Your task to perform on an android device: What's on my calendar tomorrow? Image 0: 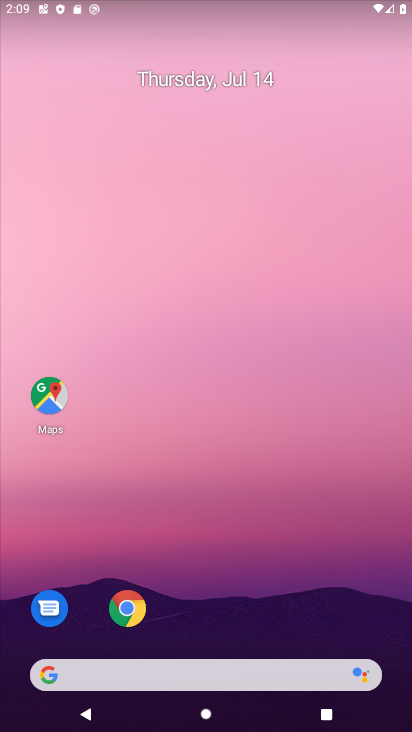
Step 0: drag from (42, 544) to (312, 66)
Your task to perform on an android device: What's on my calendar tomorrow? Image 1: 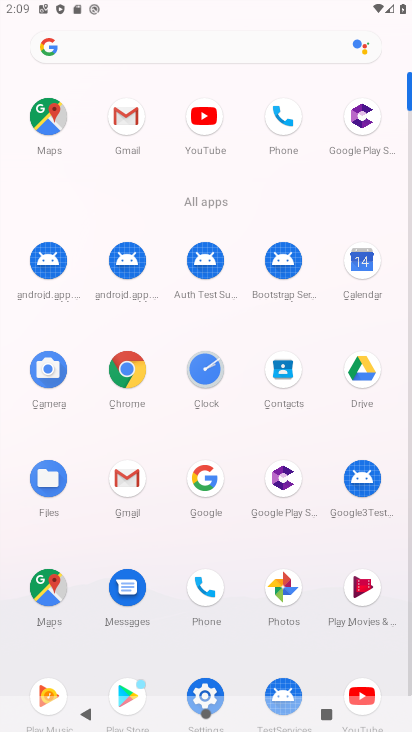
Step 1: click (362, 251)
Your task to perform on an android device: What's on my calendar tomorrow? Image 2: 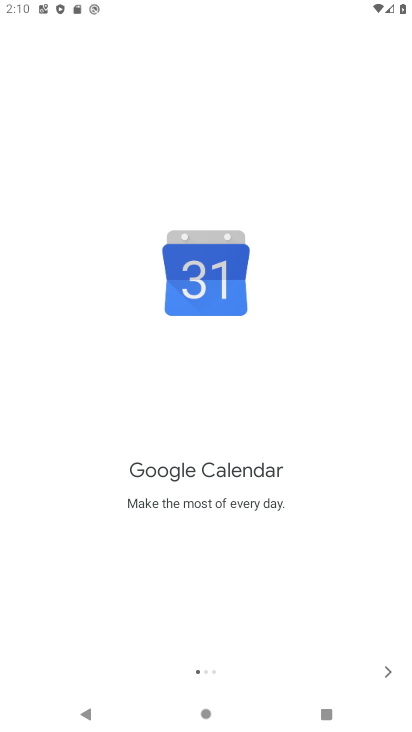
Step 2: click (392, 670)
Your task to perform on an android device: What's on my calendar tomorrow? Image 3: 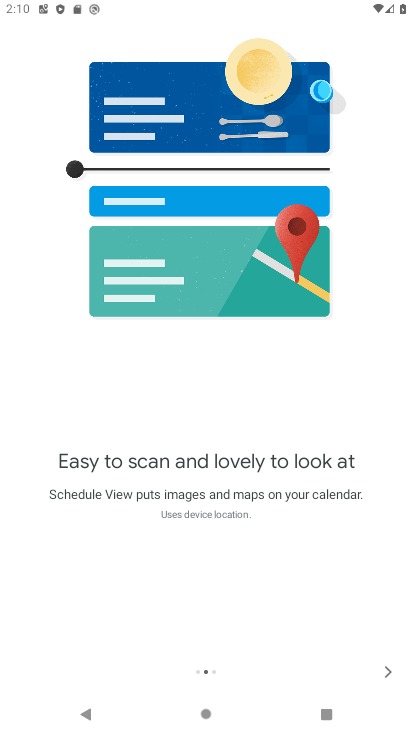
Step 3: click (392, 670)
Your task to perform on an android device: What's on my calendar tomorrow? Image 4: 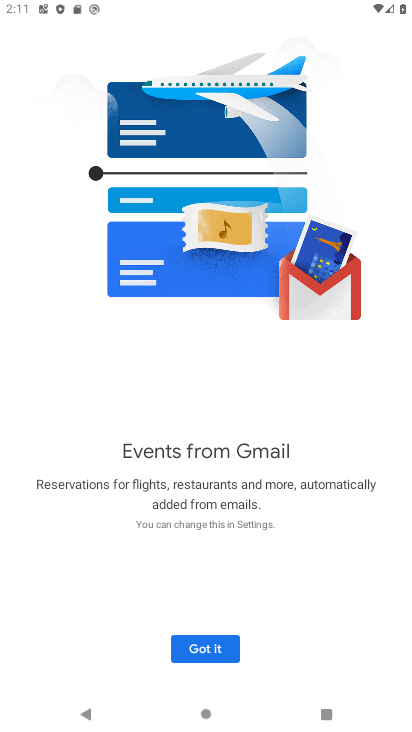
Step 4: click (204, 658)
Your task to perform on an android device: What's on my calendar tomorrow? Image 5: 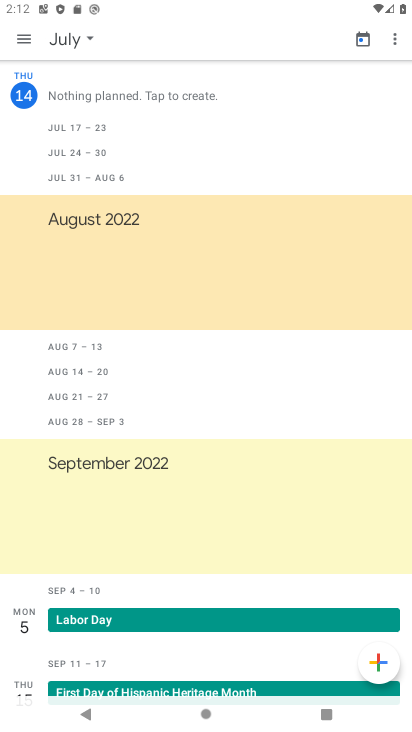
Step 5: click (66, 40)
Your task to perform on an android device: What's on my calendar tomorrow? Image 6: 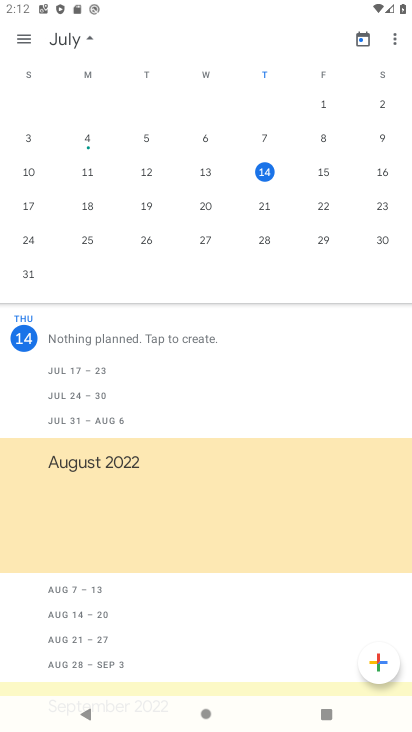
Step 6: click (329, 176)
Your task to perform on an android device: What's on my calendar tomorrow? Image 7: 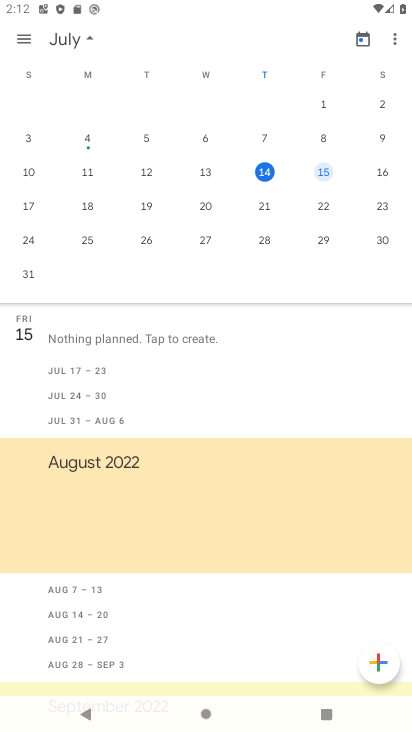
Step 7: task complete